Your task to perform on an android device: Open the contacts Image 0: 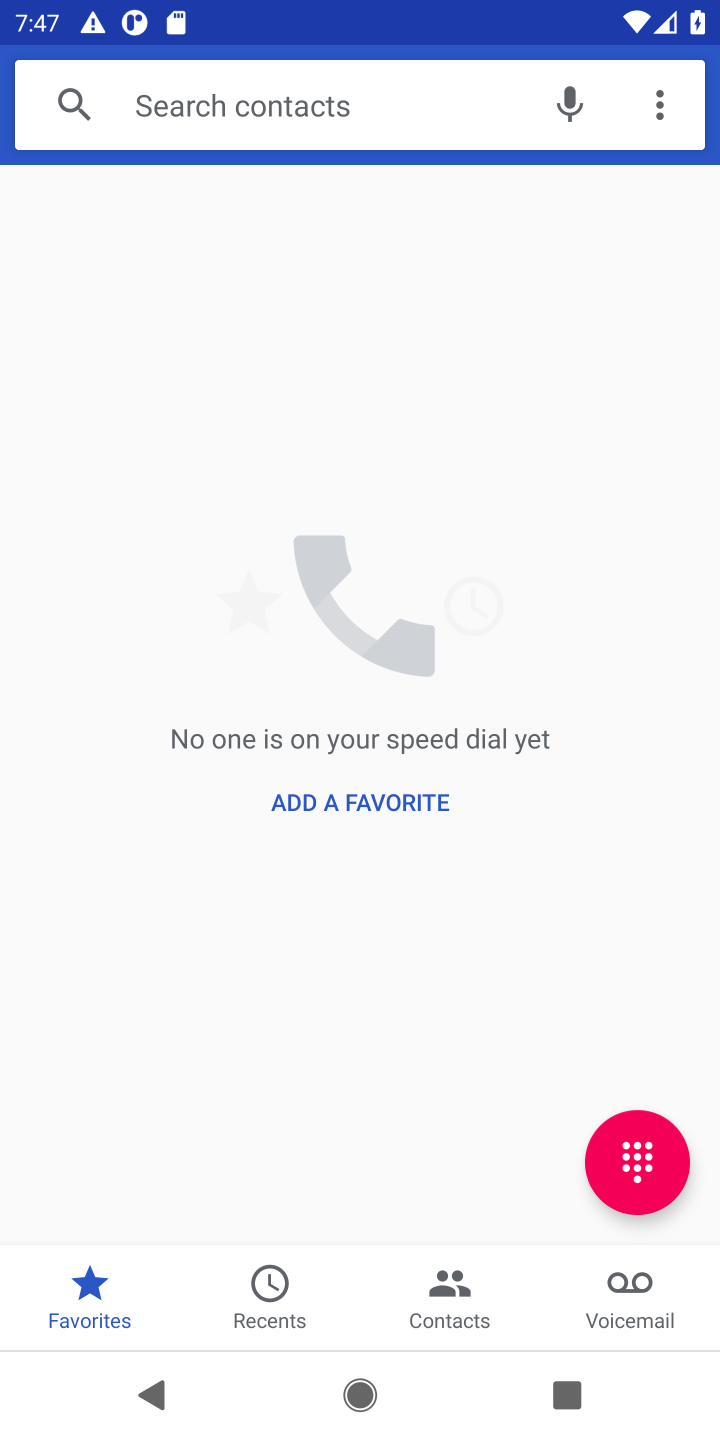
Step 0: press home button
Your task to perform on an android device: Open the contacts Image 1: 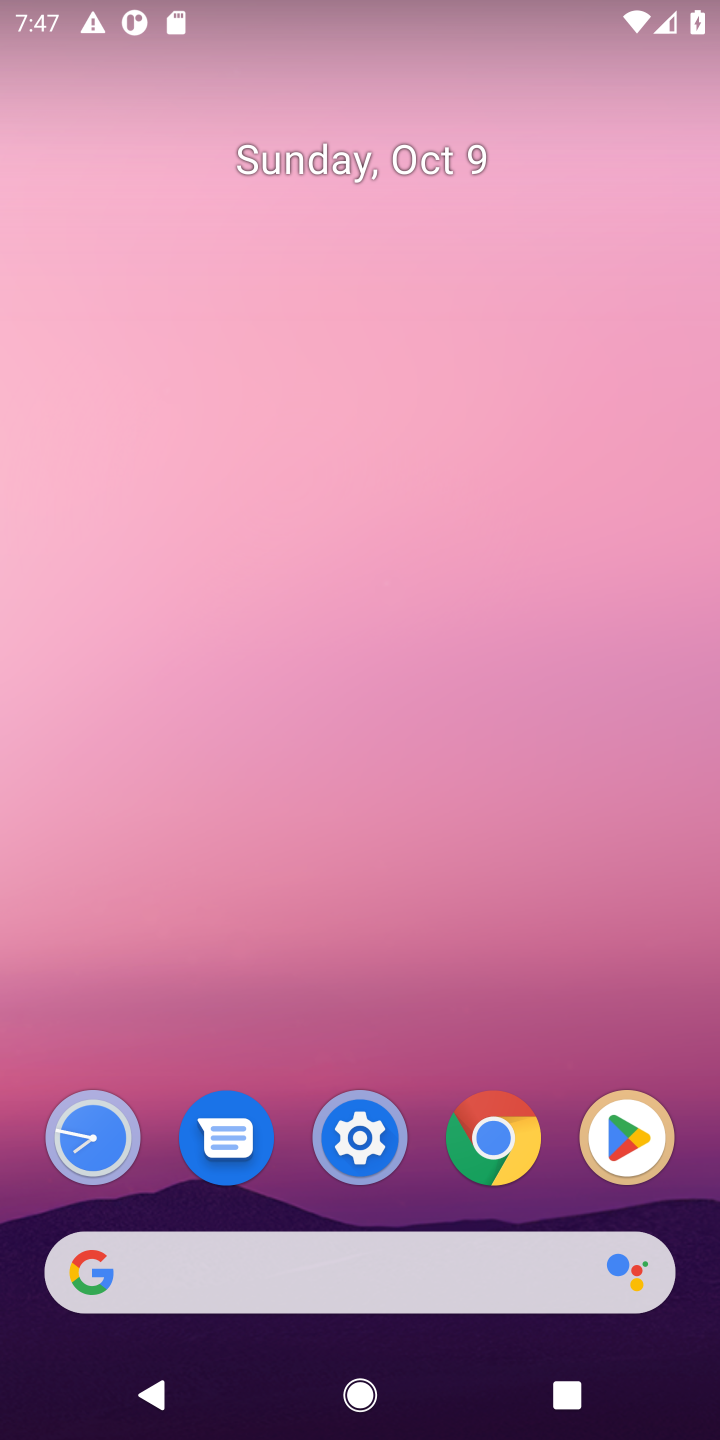
Step 1: drag from (423, 1192) to (402, 289)
Your task to perform on an android device: Open the contacts Image 2: 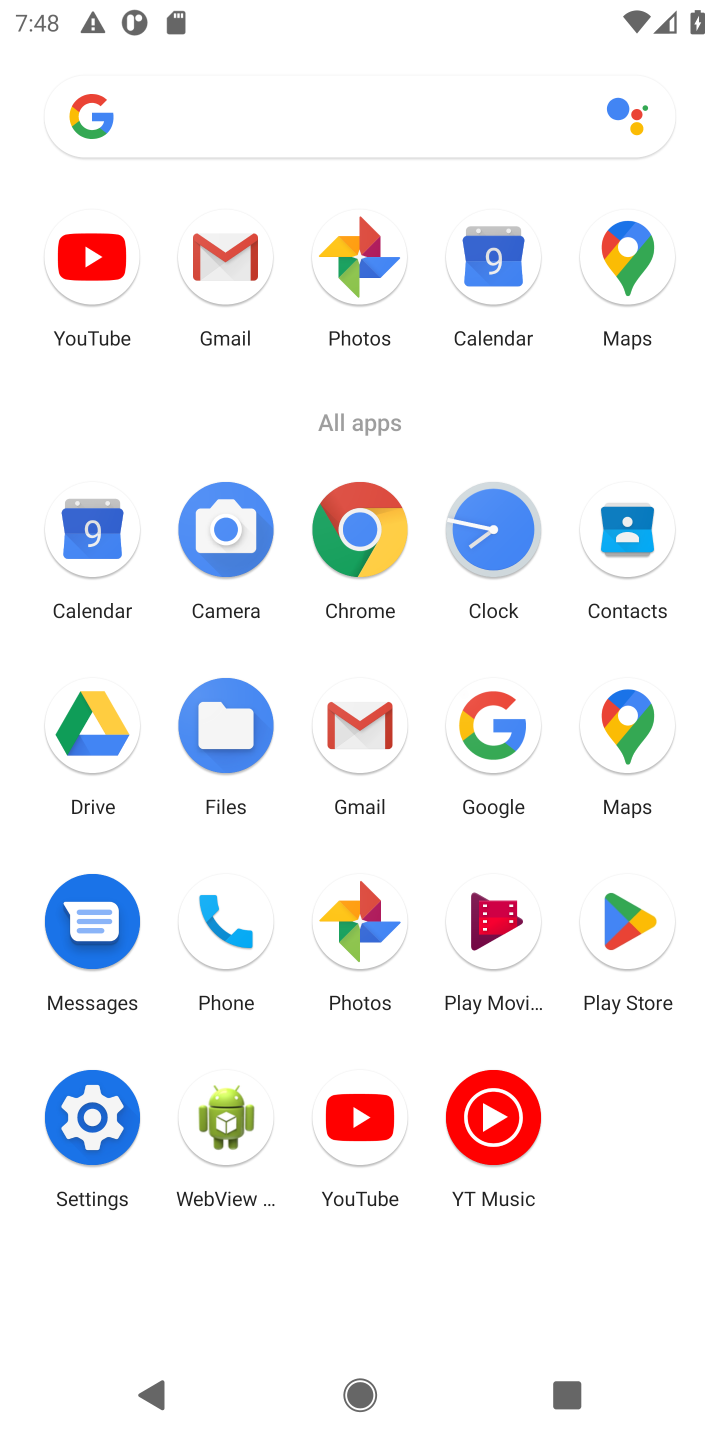
Step 2: click (602, 518)
Your task to perform on an android device: Open the contacts Image 3: 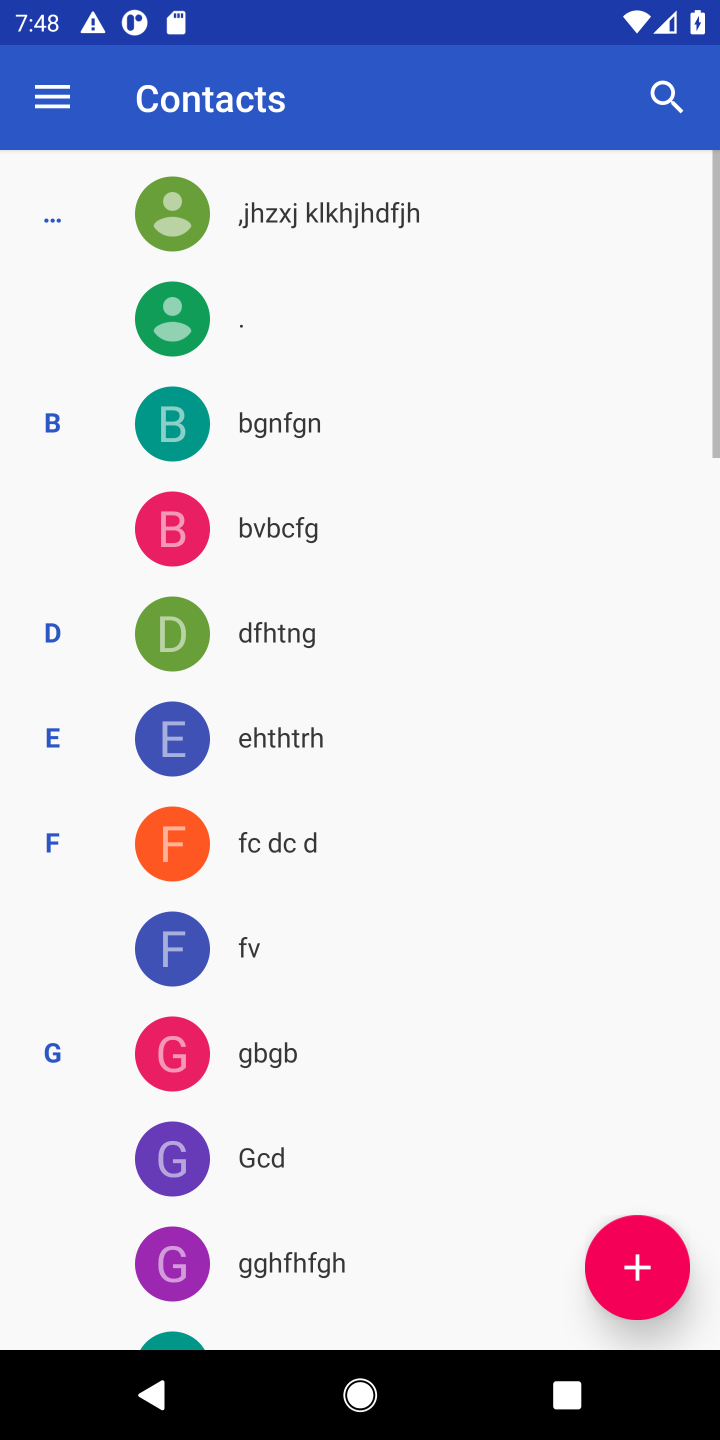
Step 3: task complete